Your task to perform on an android device: Open ESPN.com Image 0: 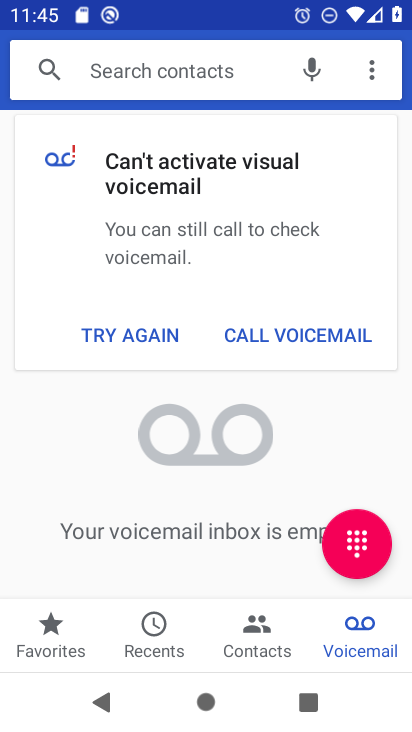
Step 0: press home button
Your task to perform on an android device: Open ESPN.com Image 1: 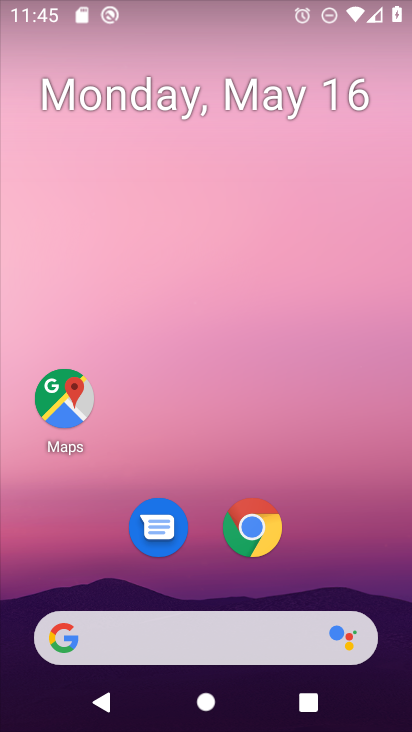
Step 1: click (258, 532)
Your task to perform on an android device: Open ESPN.com Image 2: 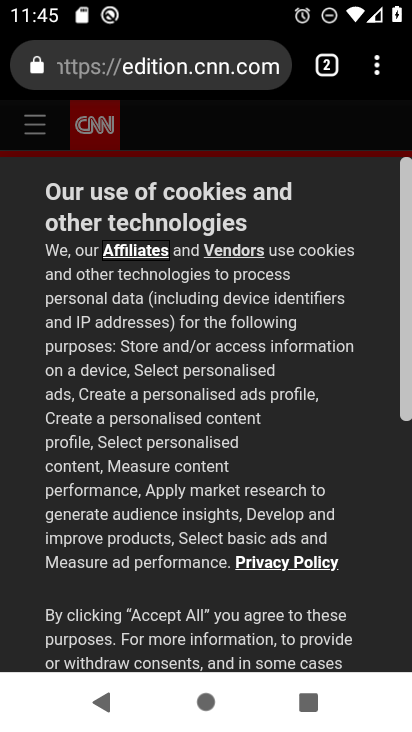
Step 2: click (251, 529)
Your task to perform on an android device: Open ESPN.com Image 3: 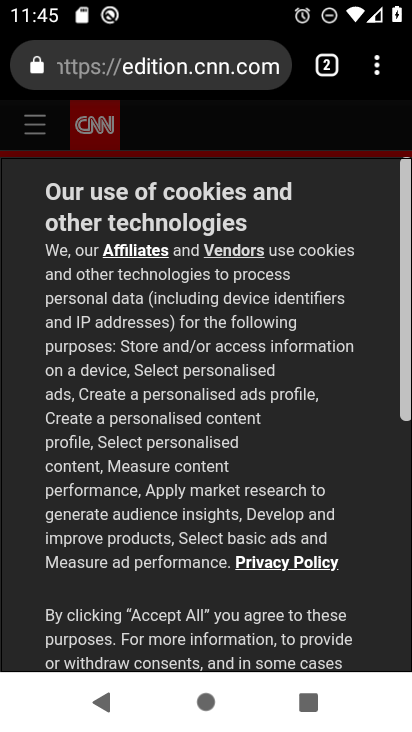
Step 3: click (173, 77)
Your task to perform on an android device: Open ESPN.com Image 4: 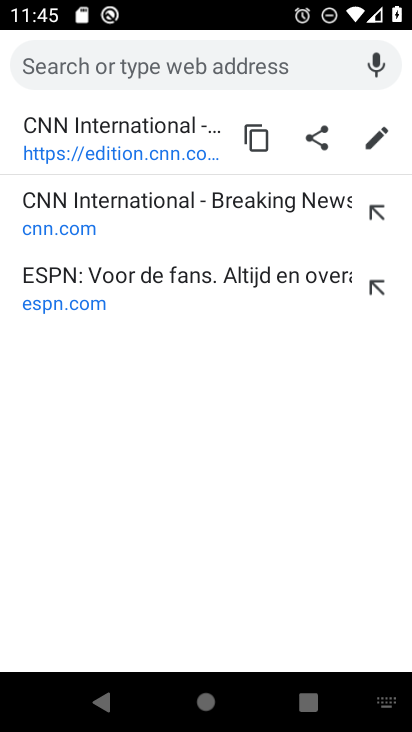
Step 4: click (55, 293)
Your task to perform on an android device: Open ESPN.com Image 5: 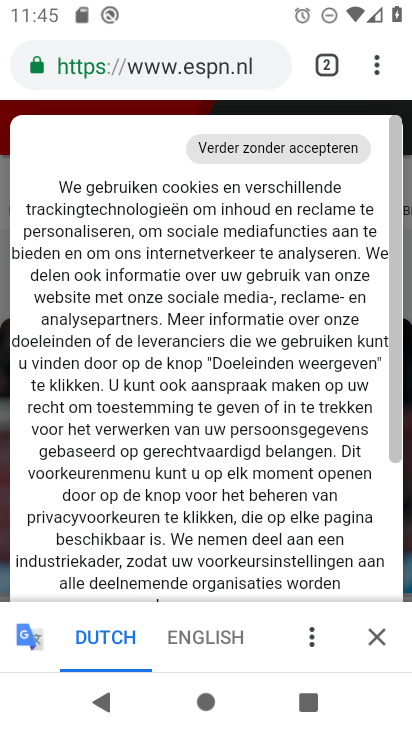
Step 5: task complete